Your task to perform on an android device: Open the downloads Image 0: 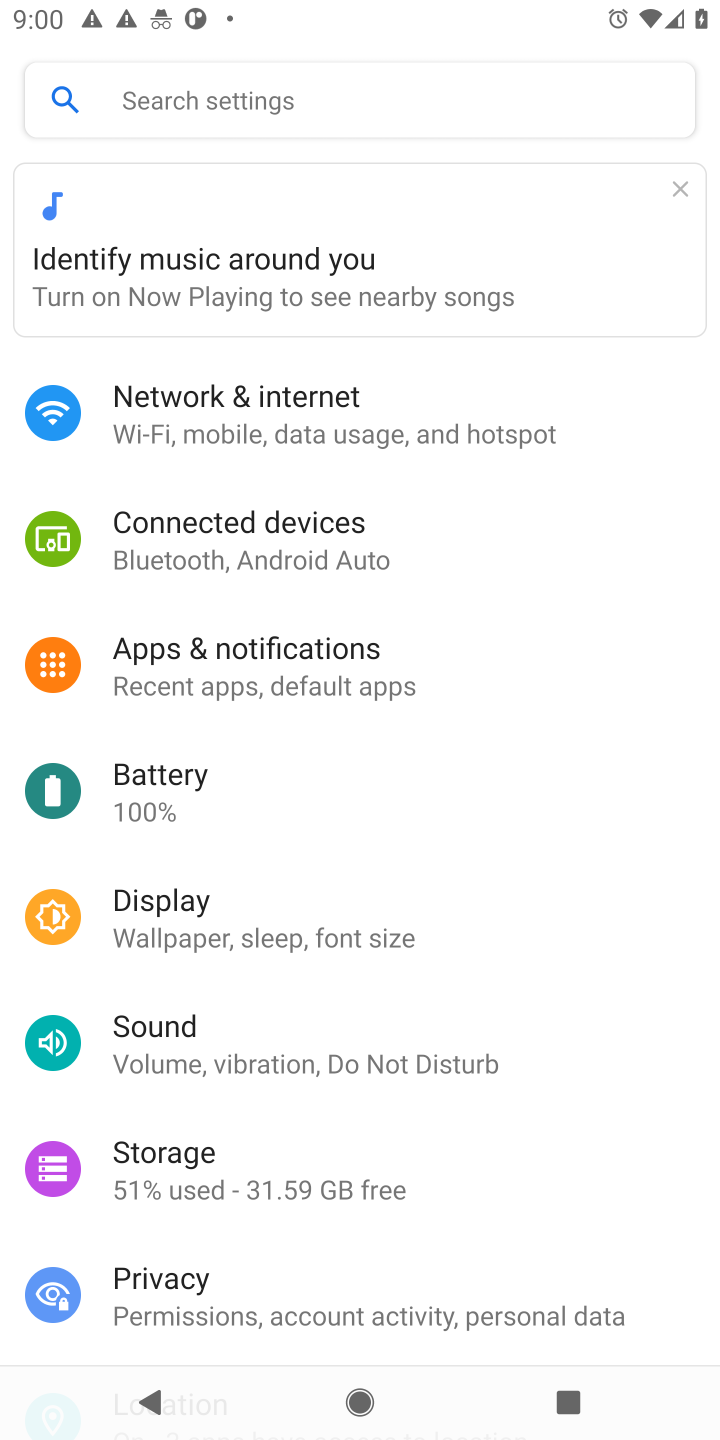
Step 0: press home button
Your task to perform on an android device: Open the downloads Image 1: 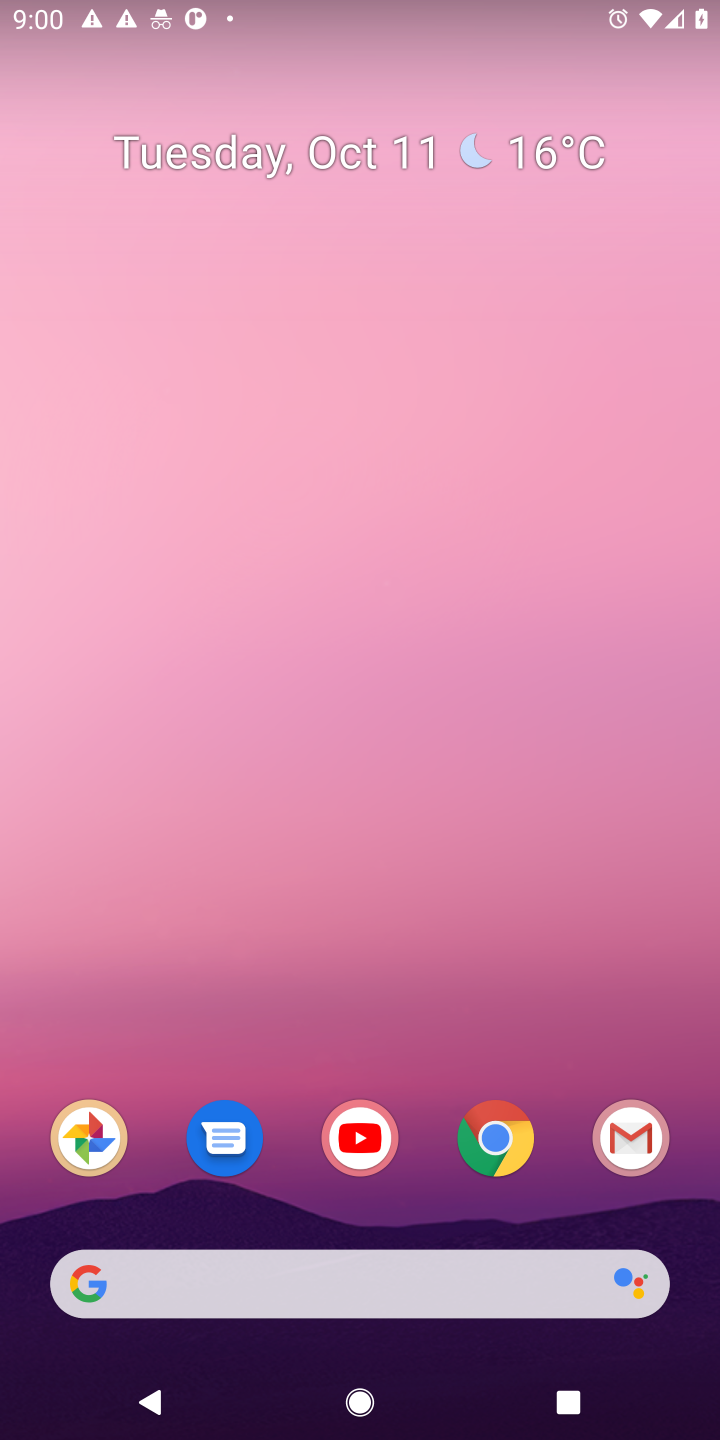
Step 1: drag from (431, 1026) to (309, 142)
Your task to perform on an android device: Open the downloads Image 2: 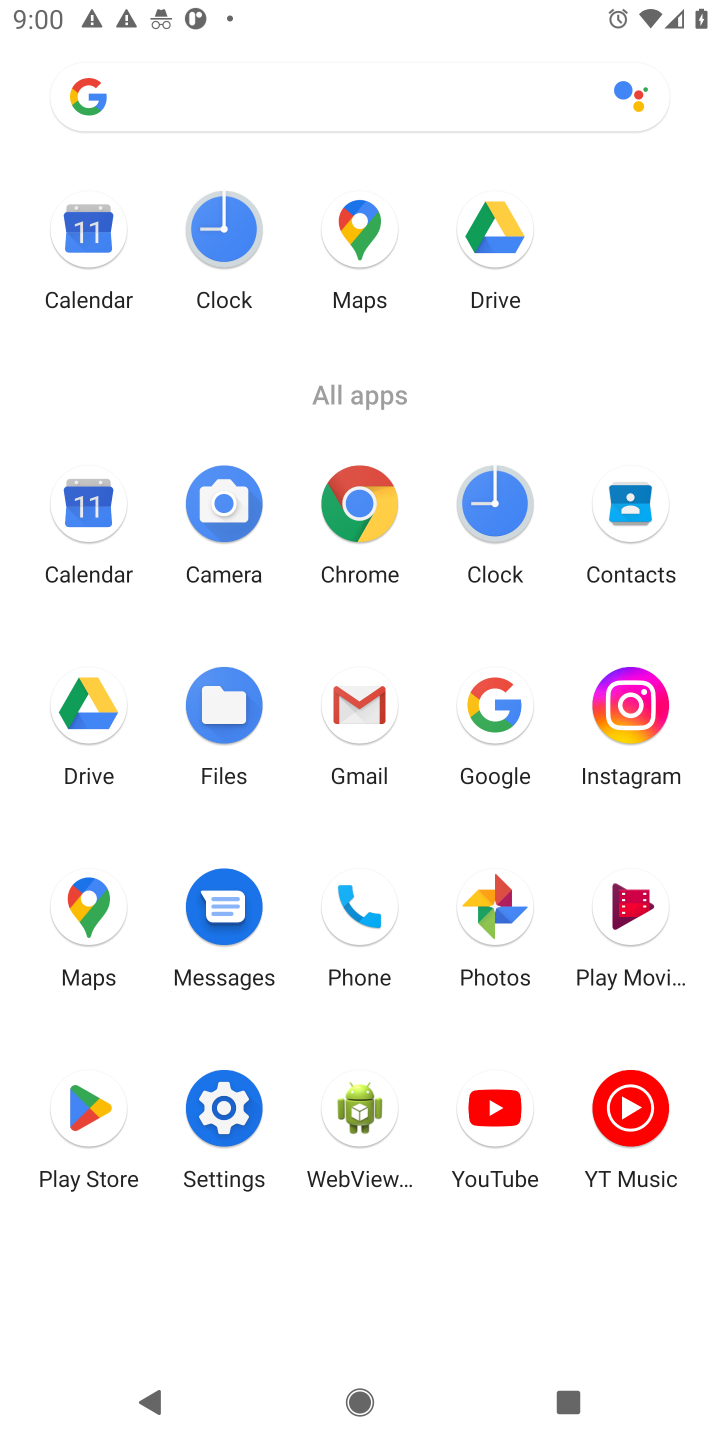
Step 2: click (218, 704)
Your task to perform on an android device: Open the downloads Image 3: 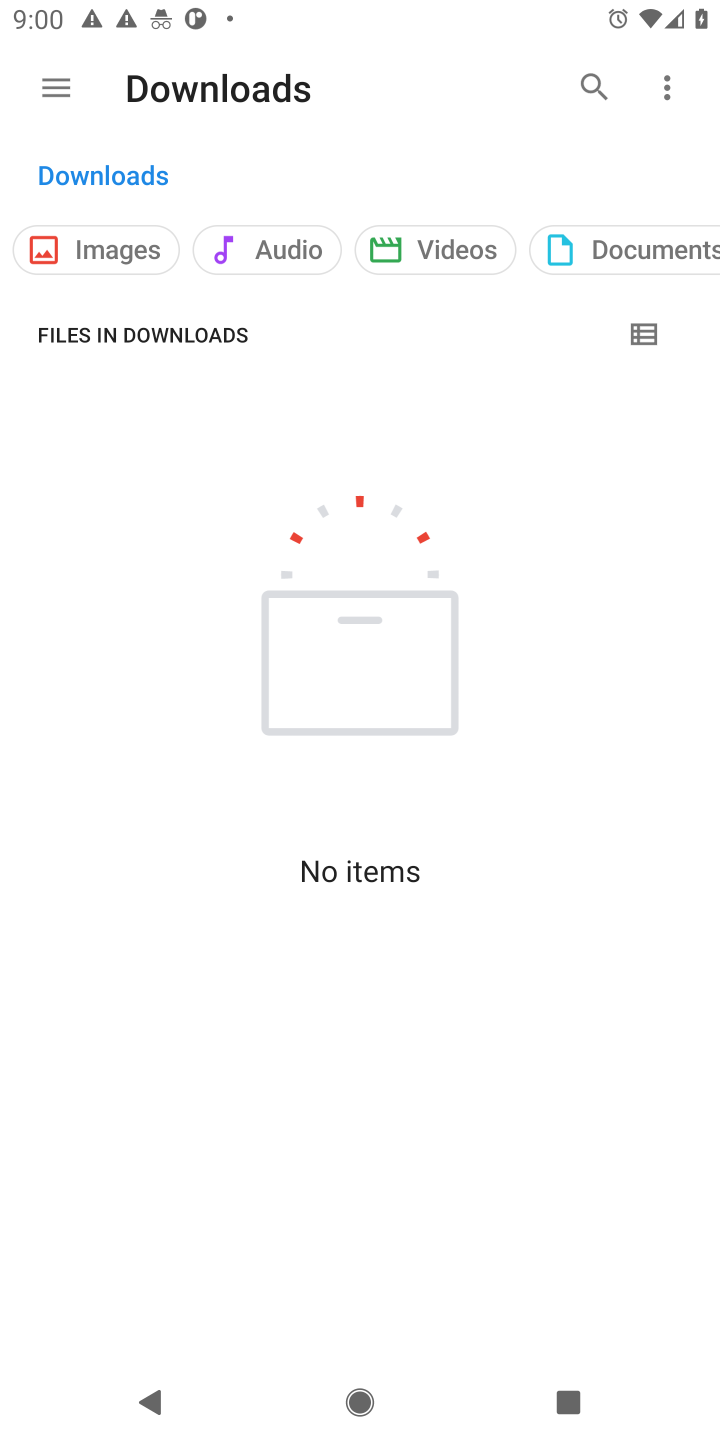
Step 3: task complete